Your task to perform on an android device: Open Reddit.com Image 0: 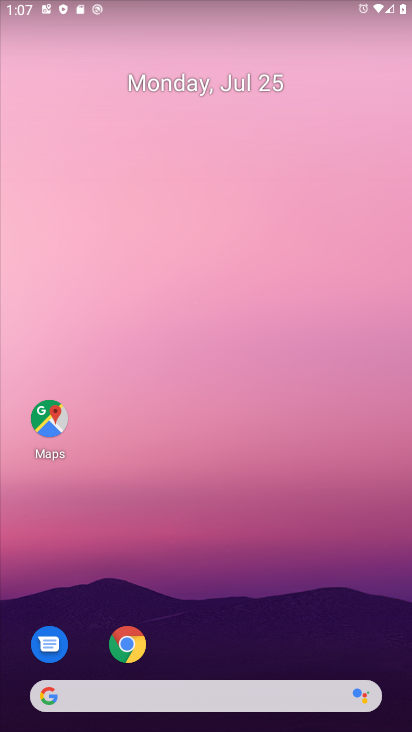
Step 0: drag from (379, 636) to (178, 62)
Your task to perform on an android device: Open Reddit.com Image 1: 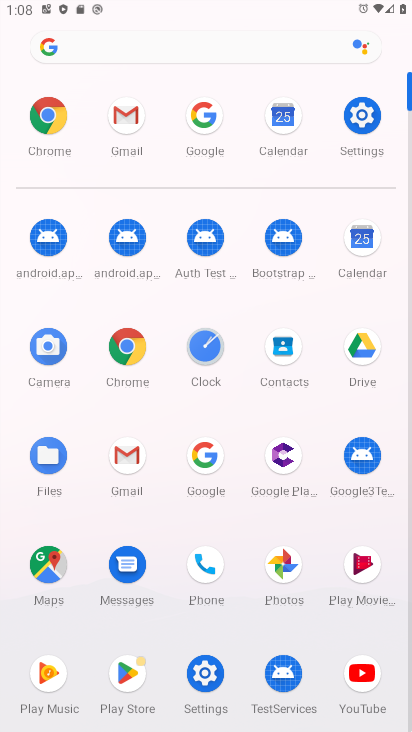
Step 1: click (199, 458)
Your task to perform on an android device: Open Reddit.com Image 2: 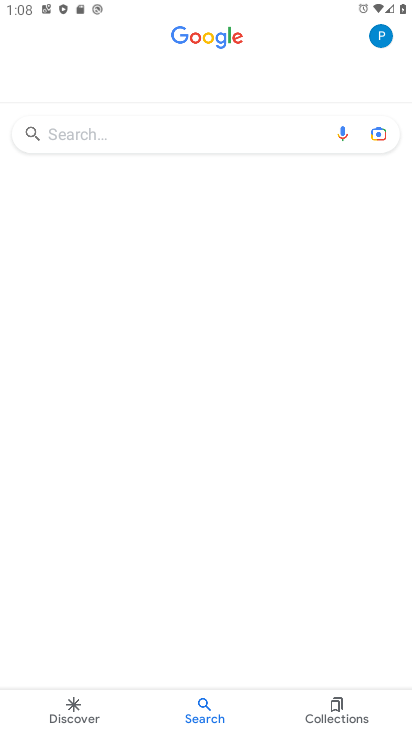
Step 2: click (224, 132)
Your task to perform on an android device: Open Reddit.com Image 3: 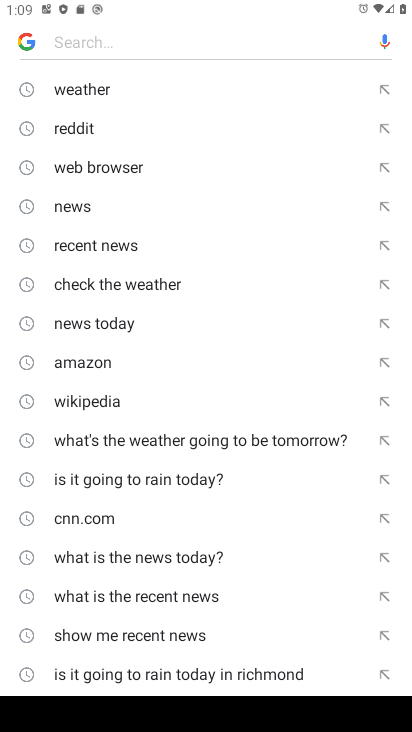
Step 3: type "Reddit.com"
Your task to perform on an android device: Open Reddit.com Image 4: 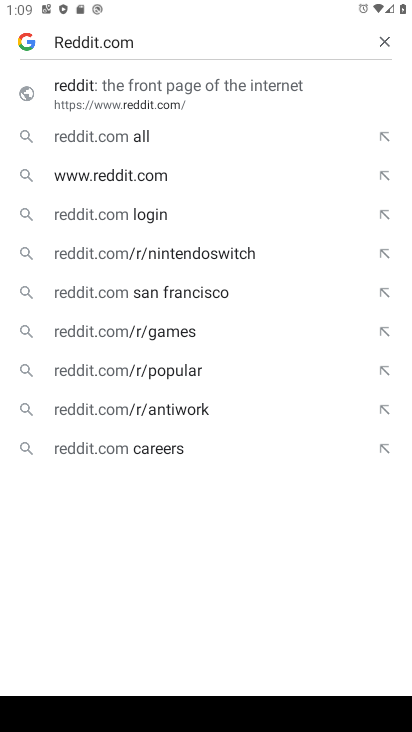
Step 4: click (159, 96)
Your task to perform on an android device: Open Reddit.com Image 5: 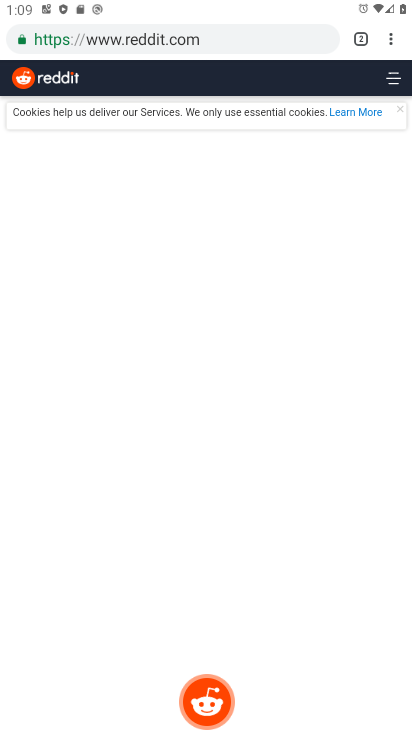
Step 5: task complete